Your task to perform on an android device: Play the last video I watched on Youtube Image 0: 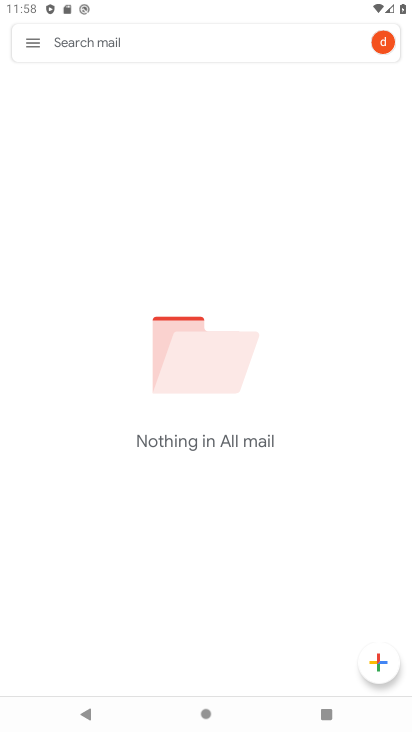
Step 0: press back button
Your task to perform on an android device: Play the last video I watched on Youtube Image 1: 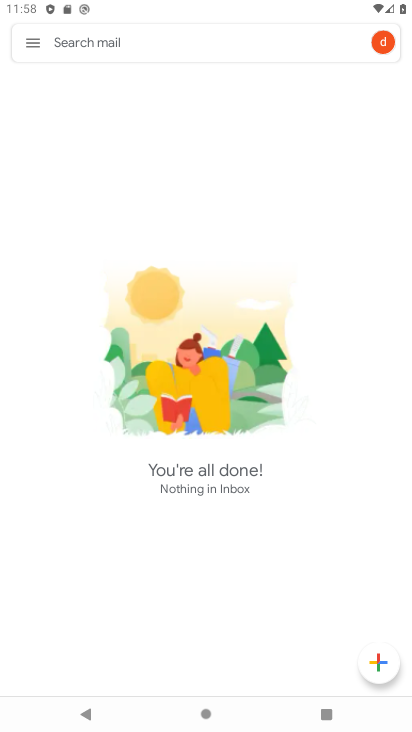
Step 1: press back button
Your task to perform on an android device: Play the last video I watched on Youtube Image 2: 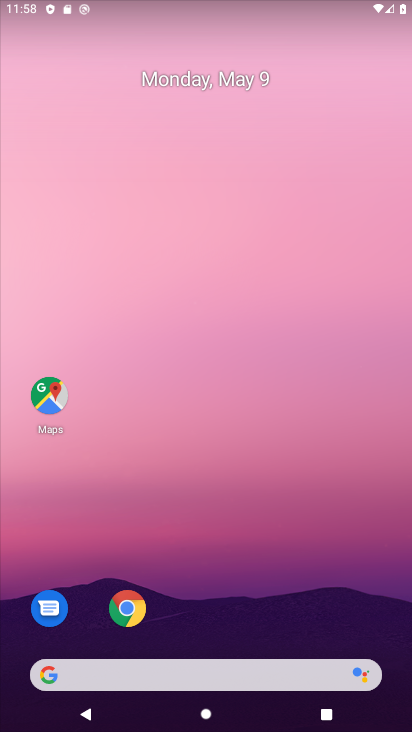
Step 2: drag from (263, 576) to (163, 16)
Your task to perform on an android device: Play the last video I watched on Youtube Image 3: 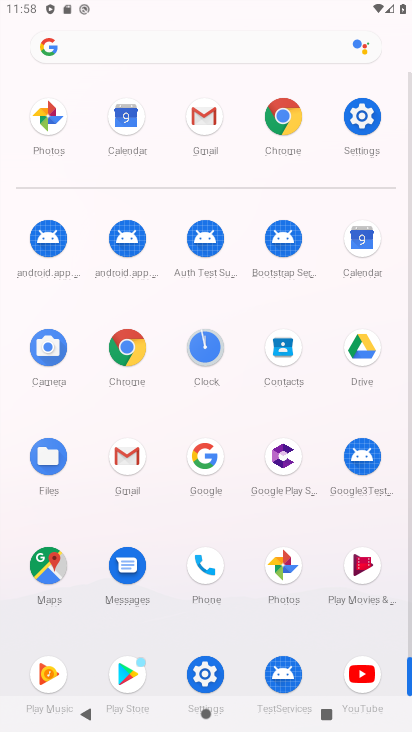
Step 3: click (362, 674)
Your task to perform on an android device: Play the last video I watched on Youtube Image 4: 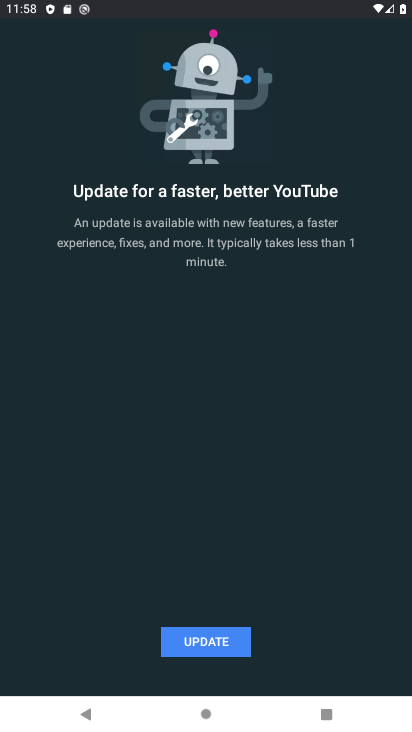
Step 4: click (220, 644)
Your task to perform on an android device: Play the last video I watched on Youtube Image 5: 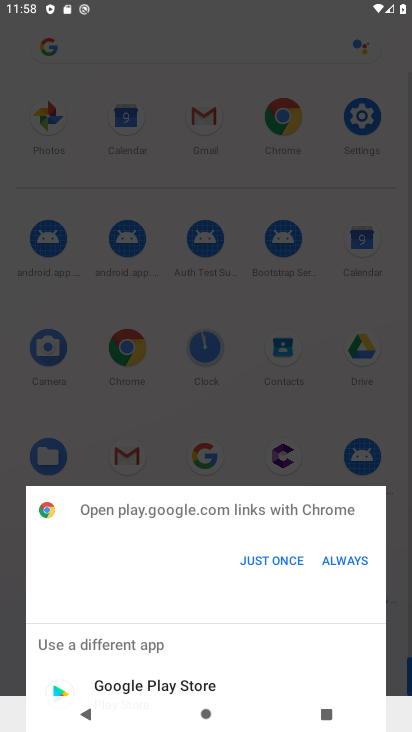
Step 5: click (270, 560)
Your task to perform on an android device: Play the last video I watched on Youtube Image 6: 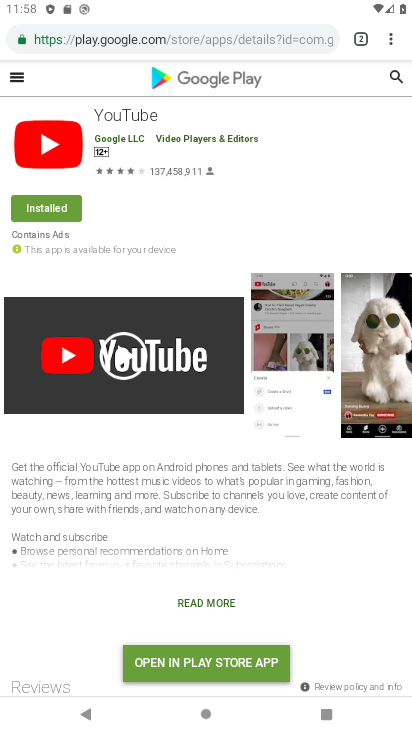
Step 6: click (212, 665)
Your task to perform on an android device: Play the last video I watched on Youtube Image 7: 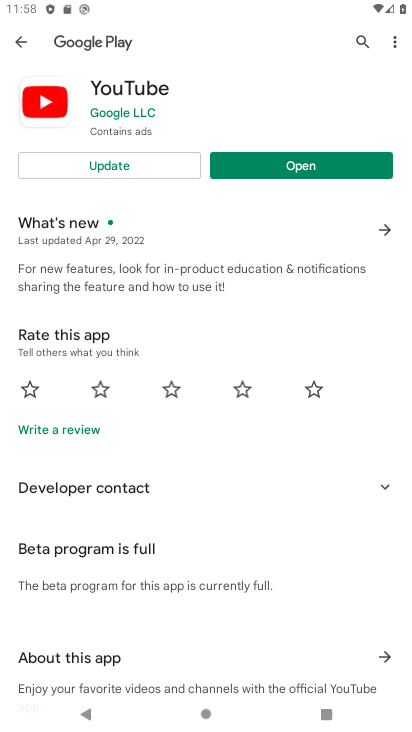
Step 7: click (177, 174)
Your task to perform on an android device: Play the last video I watched on Youtube Image 8: 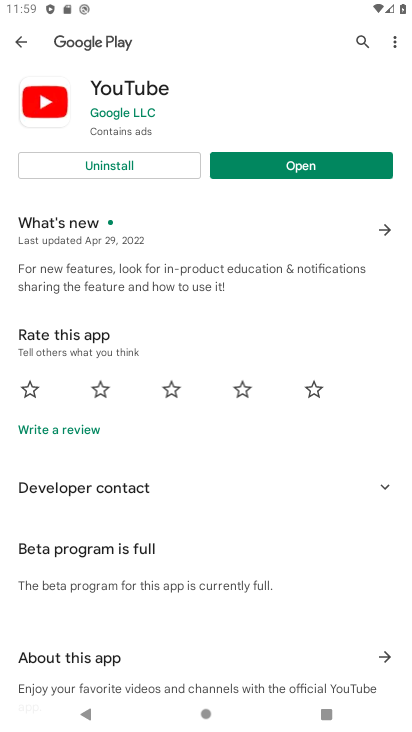
Step 8: click (236, 167)
Your task to perform on an android device: Play the last video I watched on Youtube Image 9: 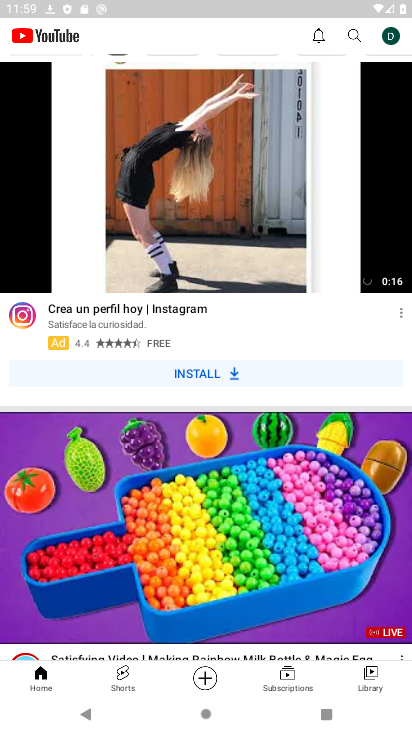
Step 9: click (367, 676)
Your task to perform on an android device: Play the last video I watched on Youtube Image 10: 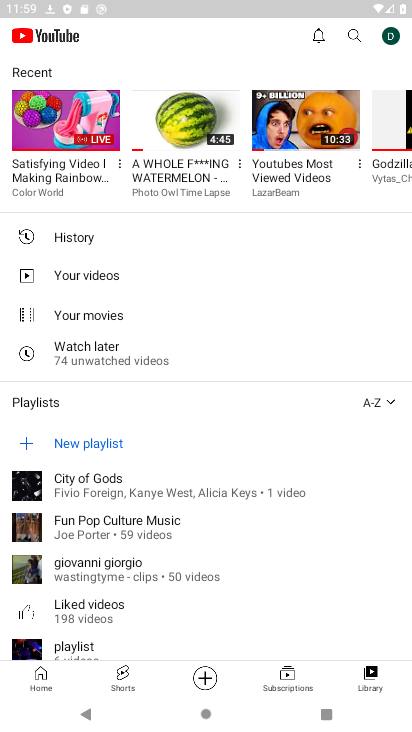
Step 10: click (41, 105)
Your task to perform on an android device: Play the last video I watched on Youtube Image 11: 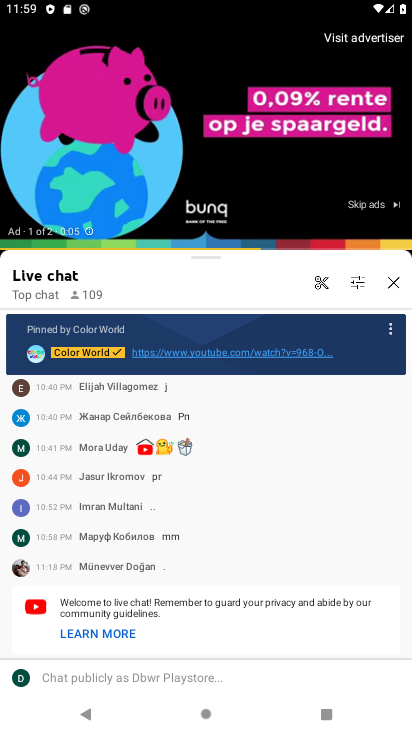
Step 11: click (356, 198)
Your task to perform on an android device: Play the last video I watched on Youtube Image 12: 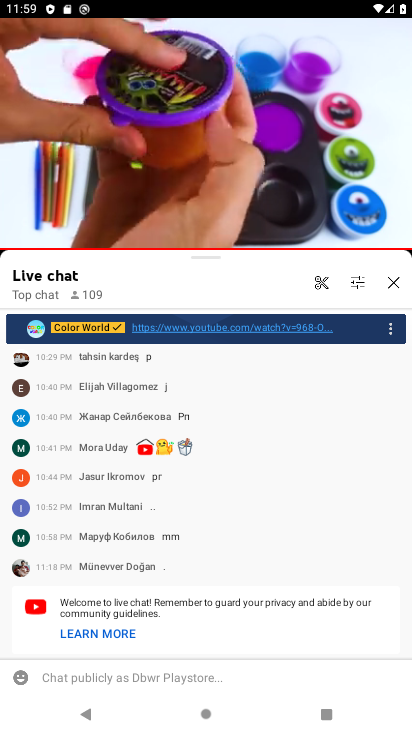
Step 12: task complete